Your task to perform on an android device: Open calendar and show me the third week of next month Image 0: 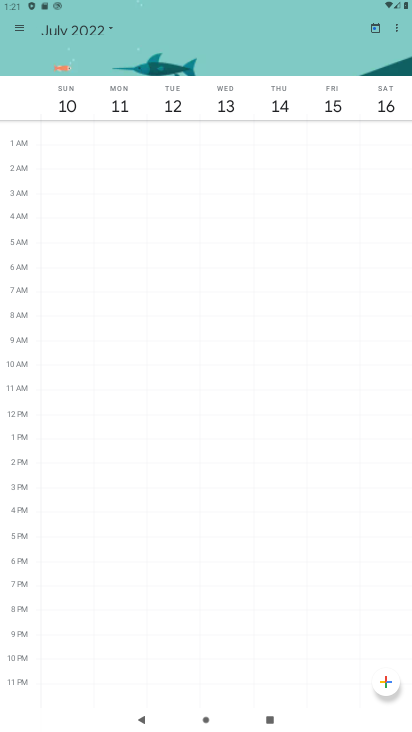
Step 0: press home button
Your task to perform on an android device: Open calendar and show me the third week of next month Image 1: 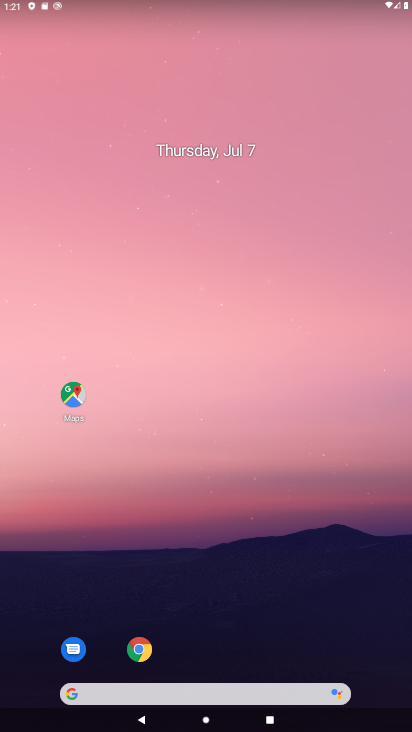
Step 1: drag from (372, 653) to (342, 82)
Your task to perform on an android device: Open calendar and show me the third week of next month Image 2: 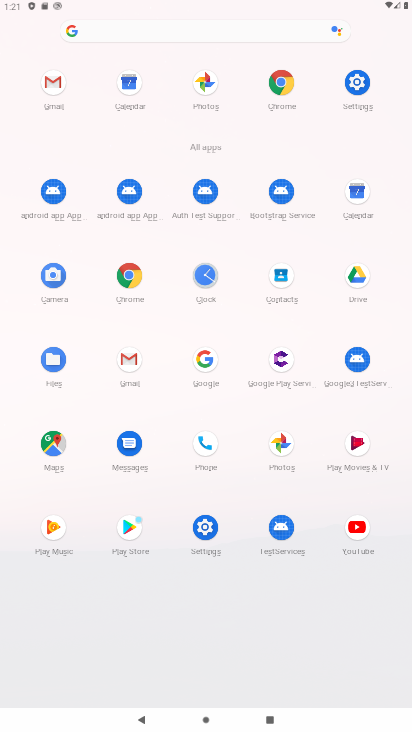
Step 2: click (357, 191)
Your task to perform on an android device: Open calendar and show me the third week of next month Image 3: 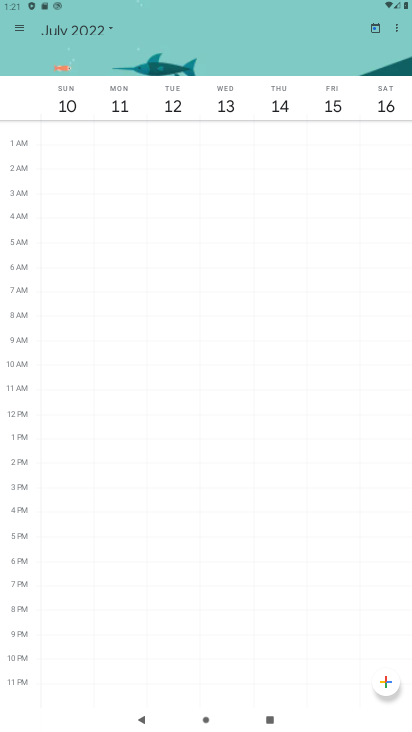
Step 3: click (18, 29)
Your task to perform on an android device: Open calendar and show me the third week of next month Image 4: 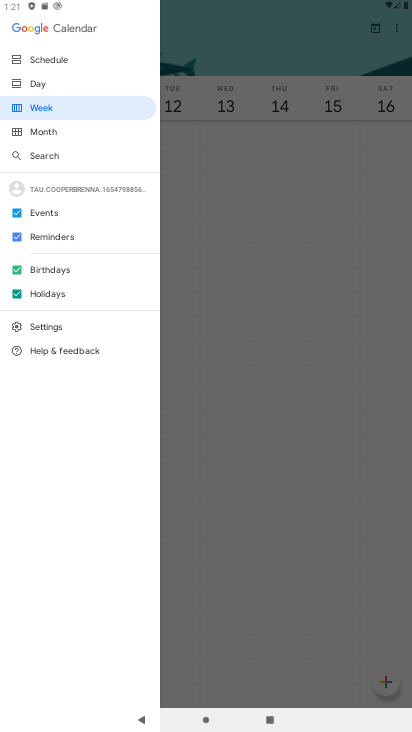
Step 4: click (66, 108)
Your task to perform on an android device: Open calendar and show me the third week of next month Image 5: 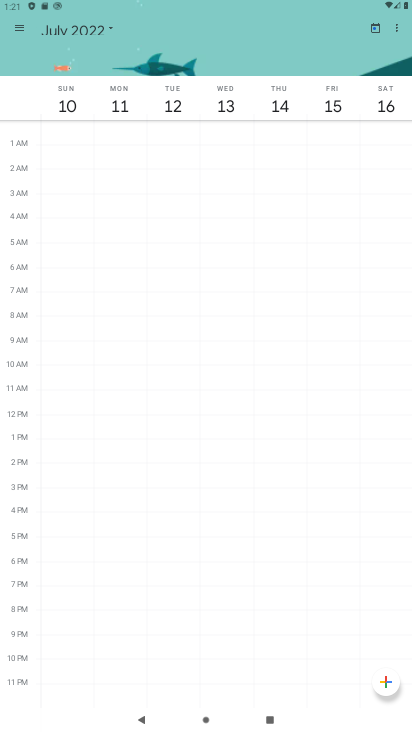
Step 5: click (105, 28)
Your task to perform on an android device: Open calendar and show me the third week of next month Image 6: 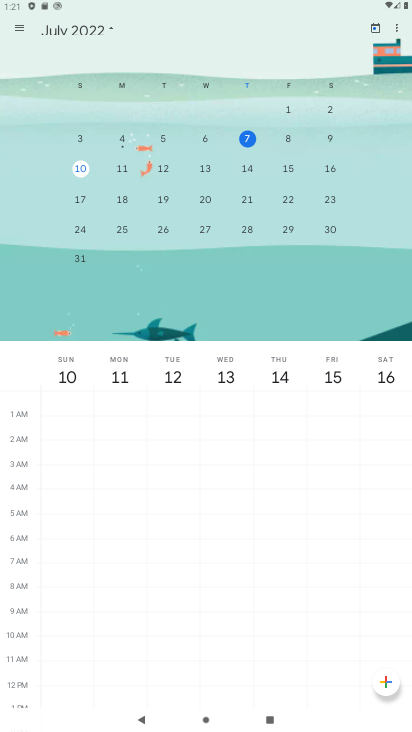
Step 6: drag from (333, 179) to (71, 195)
Your task to perform on an android device: Open calendar and show me the third week of next month Image 7: 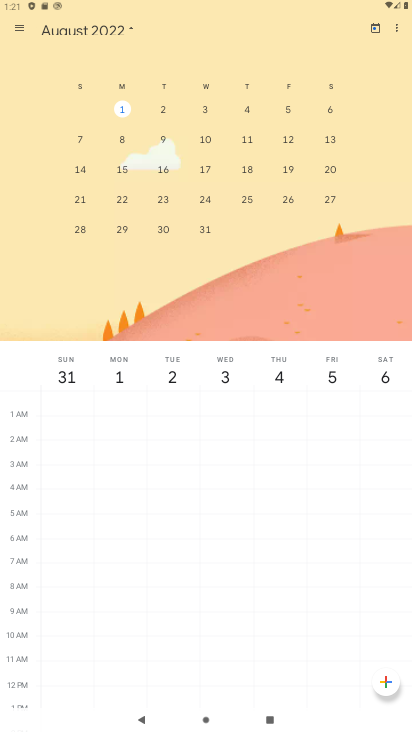
Step 7: click (80, 170)
Your task to perform on an android device: Open calendar and show me the third week of next month Image 8: 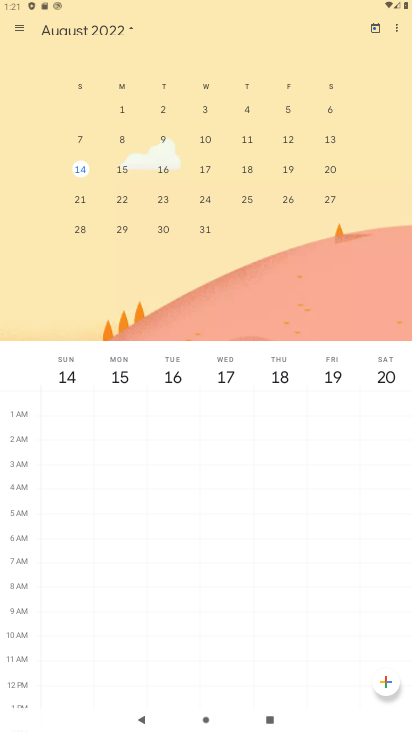
Step 8: task complete